Your task to perform on an android device: delete location history Image 0: 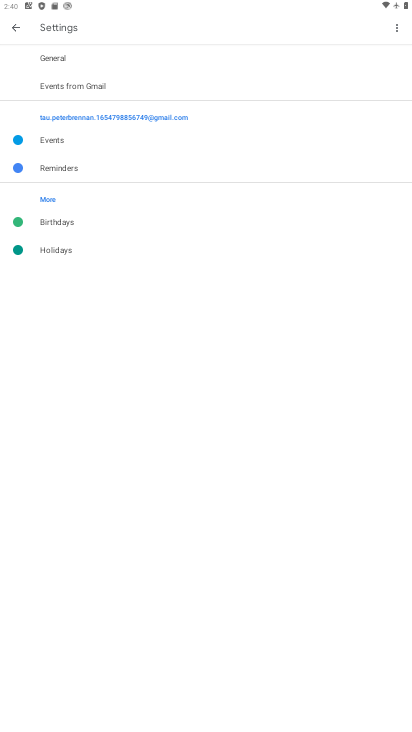
Step 0: press home button
Your task to perform on an android device: delete location history Image 1: 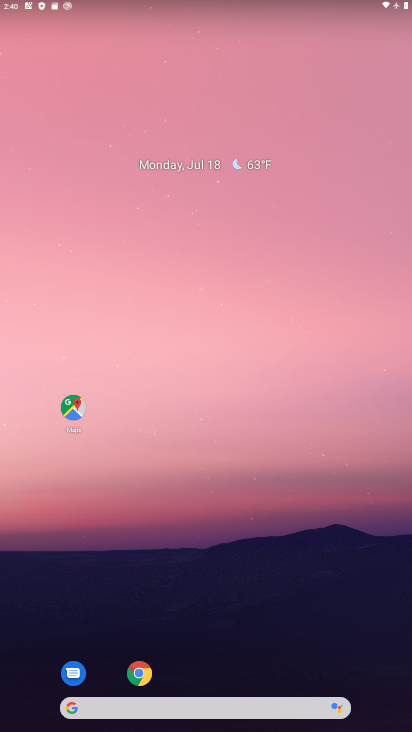
Step 1: drag from (235, 660) to (237, 271)
Your task to perform on an android device: delete location history Image 2: 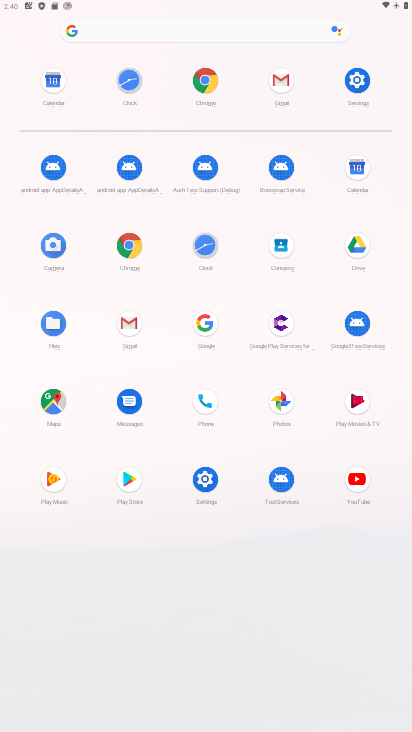
Step 2: click (210, 76)
Your task to perform on an android device: delete location history Image 3: 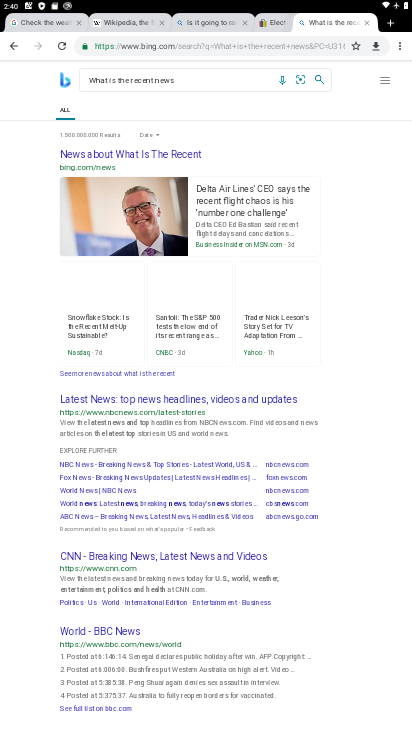
Step 3: click (401, 40)
Your task to perform on an android device: delete location history Image 4: 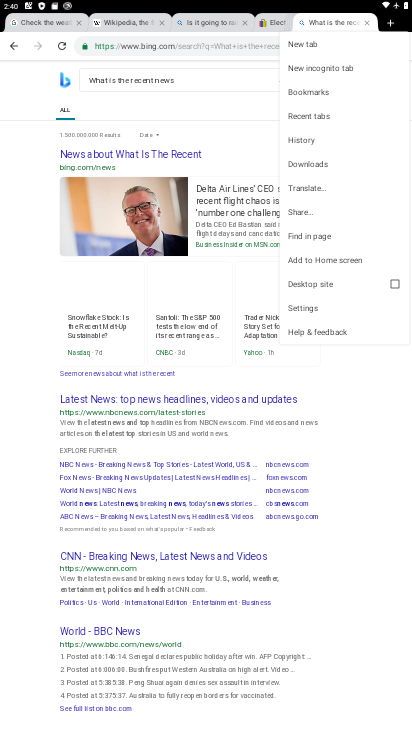
Step 4: click (314, 133)
Your task to perform on an android device: delete location history Image 5: 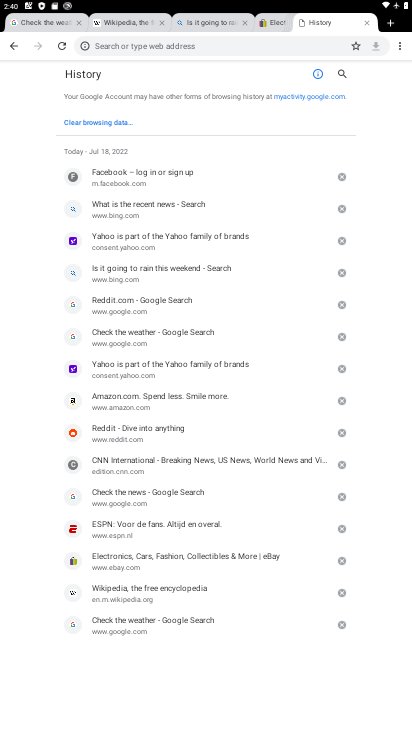
Step 5: click (111, 127)
Your task to perform on an android device: delete location history Image 6: 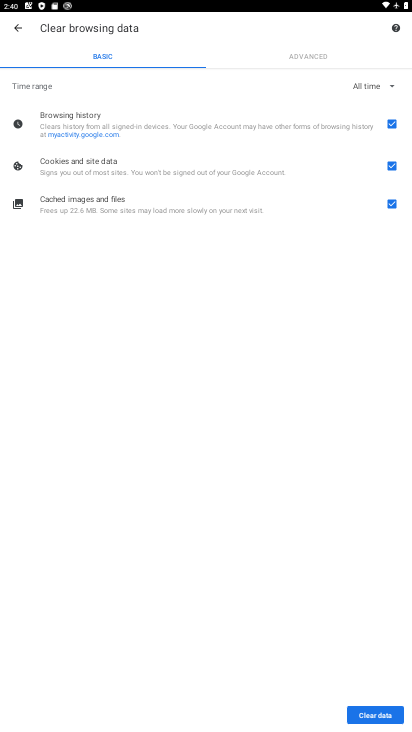
Step 6: click (354, 715)
Your task to perform on an android device: delete location history Image 7: 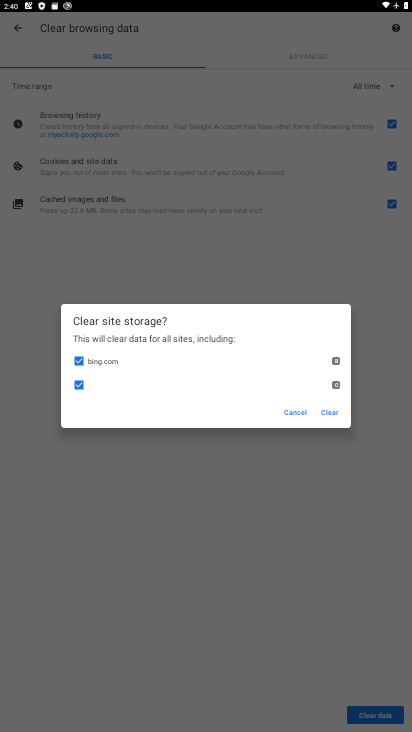
Step 7: click (331, 415)
Your task to perform on an android device: delete location history Image 8: 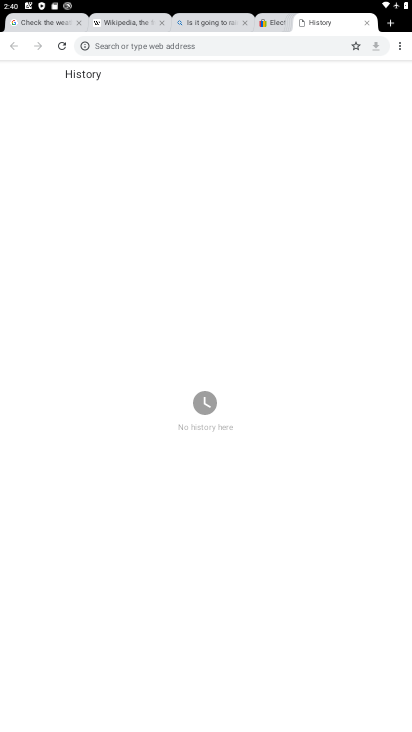
Step 8: task complete